Your task to perform on an android device: open wifi settings Image 0: 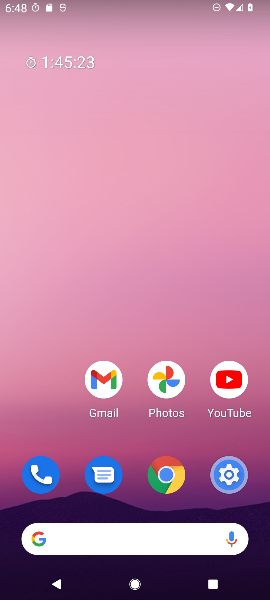
Step 0: press home button
Your task to perform on an android device: open wifi settings Image 1: 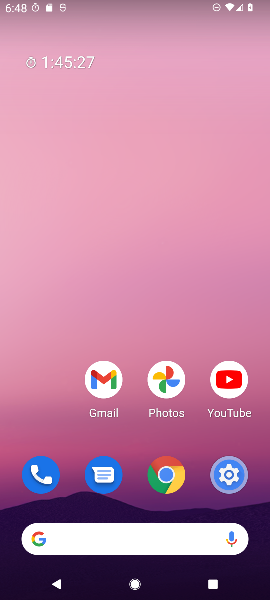
Step 1: drag from (55, 424) to (63, 137)
Your task to perform on an android device: open wifi settings Image 2: 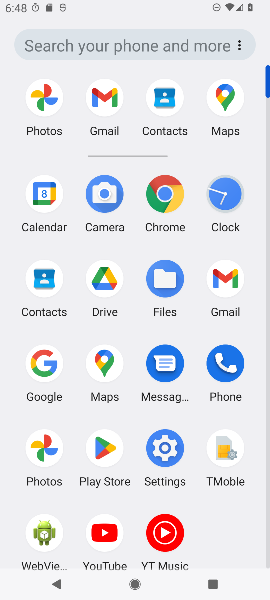
Step 2: click (159, 452)
Your task to perform on an android device: open wifi settings Image 3: 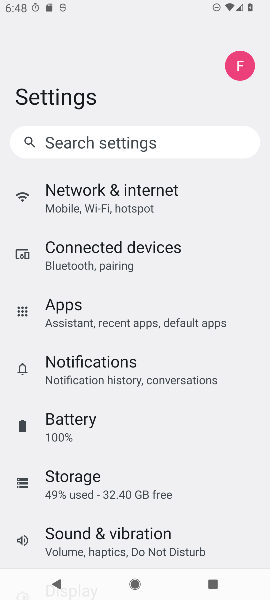
Step 3: drag from (242, 412) to (244, 325)
Your task to perform on an android device: open wifi settings Image 4: 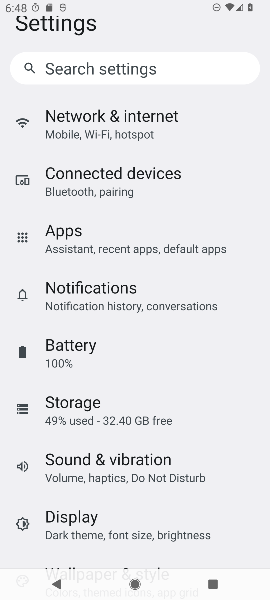
Step 4: click (229, 333)
Your task to perform on an android device: open wifi settings Image 5: 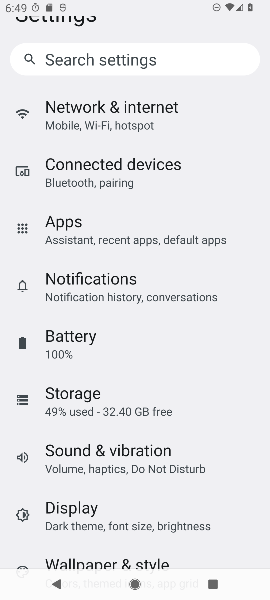
Step 5: drag from (227, 437) to (234, 310)
Your task to perform on an android device: open wifi settings Image 6: 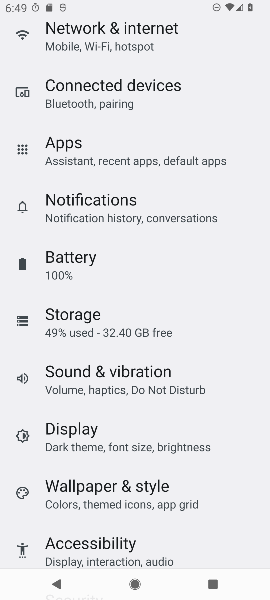
Step 6: drag from (229, 406) to (230, 295)
Your task to perform on an android device: open wifi settings Image 7: 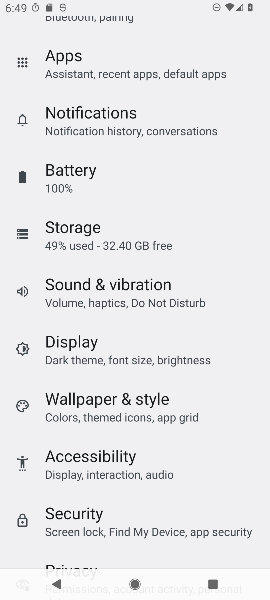
Step 7: drag from (224, 436) to (235, 312)
Your task to perform on an android device: open wifi settings Image 8: 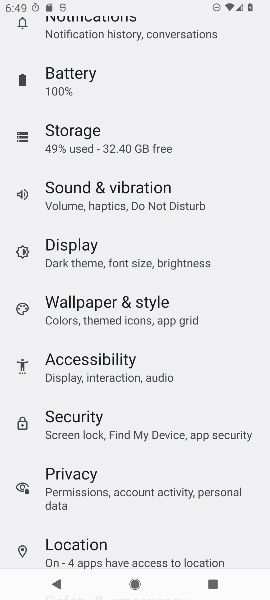
Step 8: drag from (225, 397) to (238, 272)
Your task to perform on an android device: open wifi settings Image 9: 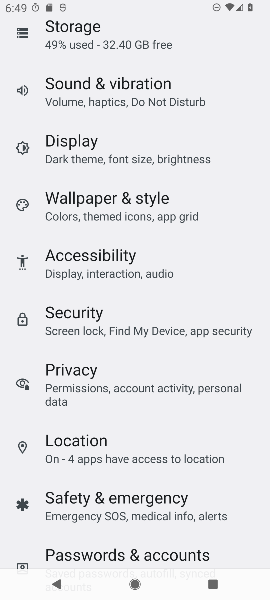
Step 9: drag from (237, 435) to (245, 272)
Your task to perform on an android device: open wifi settings Image 10: 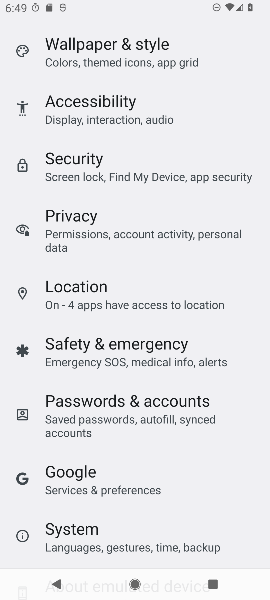
Step 10: drag from (224, 476) to (234, 300)
Your task to perform on an android device: open wifi settings Image 11: 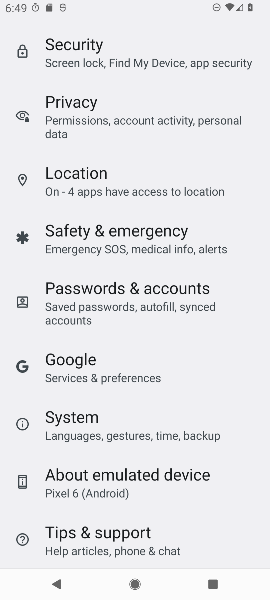
Step 11: drag from (238, 470) to (233, 257)
Your task to perform on an android device: open wifi settings Image 12: 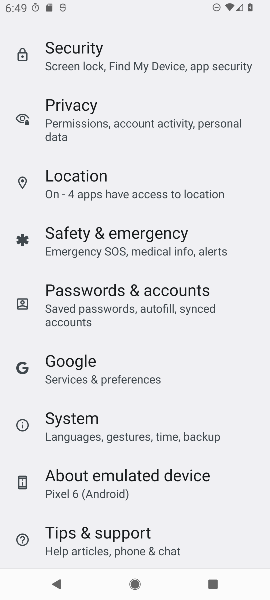
Step 12: drag from (240, 210) to (240, 359)
Your task to perform on an android device: open wifi settings Image 13: 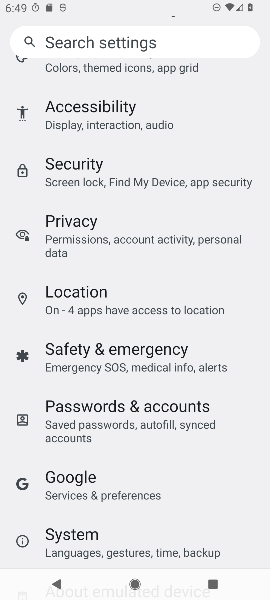
Step 13: drag from (250, 208) to (254, 359)
Your task to perform on an android device: open wifi settings Image 14: 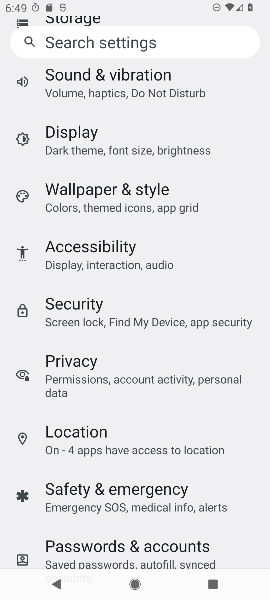
Step 14: drag from (254, 142) to (242, 289)
Your task to perform on an android device: open wifi settings Image 15: 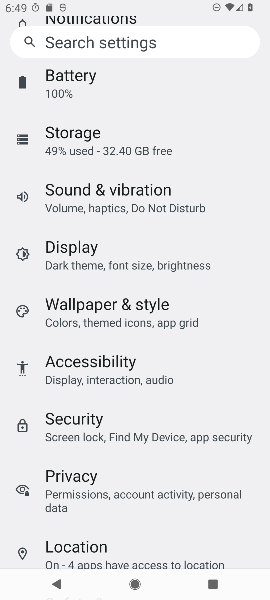
Step 15: drag from (234, 115) to (237, 261)
Your task to perform on an android device: open wifi settings Image 16: 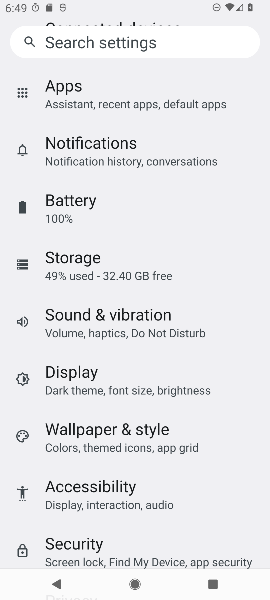
Step 16: drag from (244, 131) to (238, 272)
Your task to perform on an android device: open wifi settings Image 17: 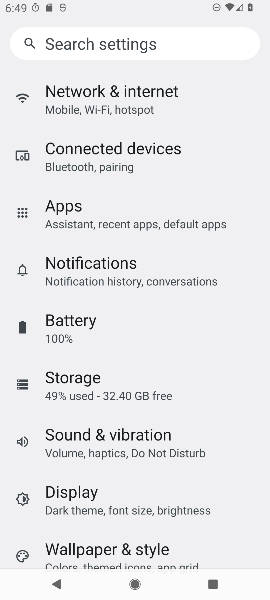
Step 17: drag from (239, 115) to (251, 270)
Your task to perform on an android device: open wifi settings Image 18: 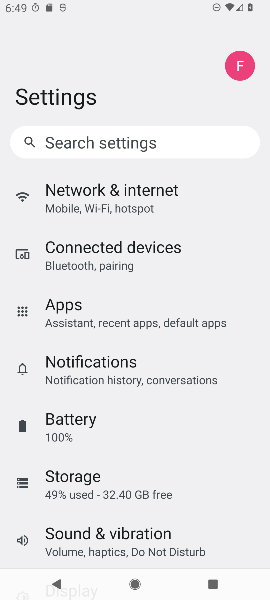
Step 18: click (142, 197)
Your task to perform on an android device: open wifi settings Image 19: 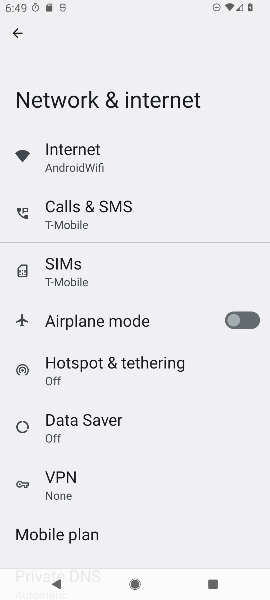
Step 19: click (82, 156)
Your task to perform on an android device: open wifi settings Image 20: 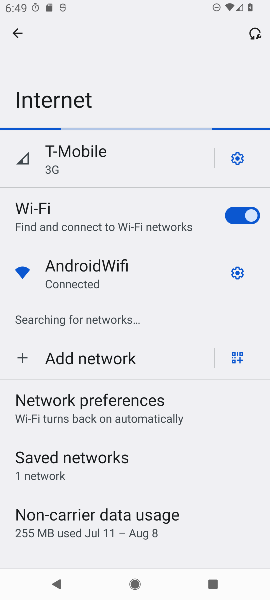
Step 20: task complete